Your task to perform on an android device: Show me popular games on the Play Store Image 0: 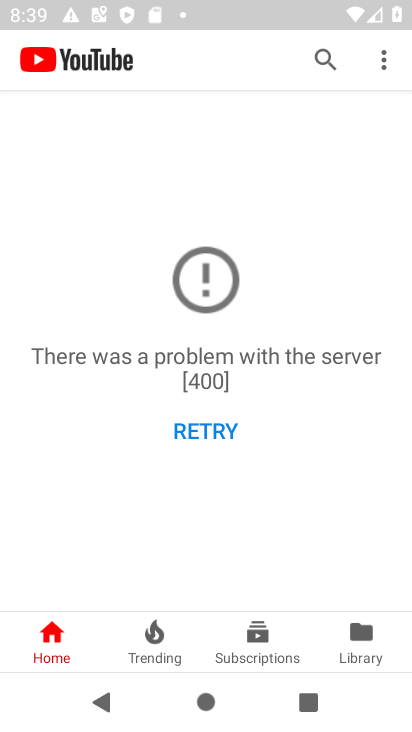
Step 0: press home button
Your task to perform on an android device: Show me popular games on the Play Store Image 1: 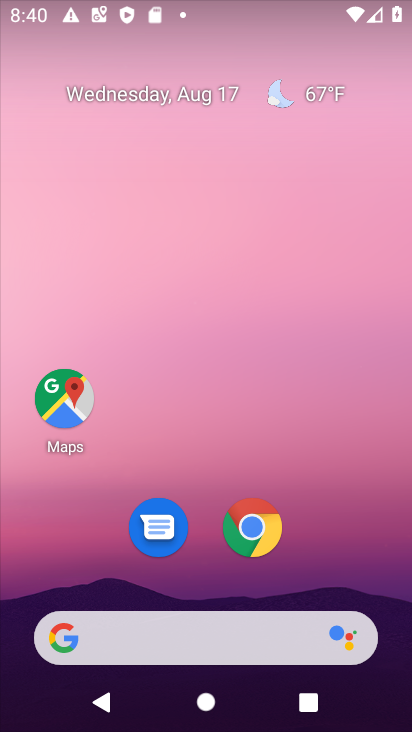
Step 1: drag from (207, 578) to (219, 2)
Your task to perform on an android device: Show me popular games on the Play Store Image 2: 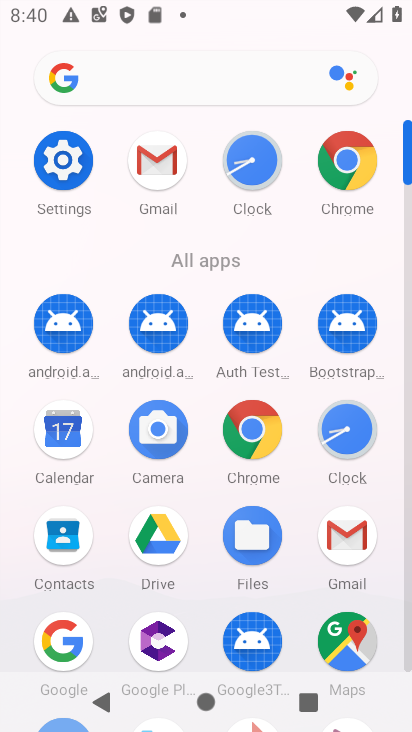
Step 2: drag from (196, 670) to (218, 137)
Your task to perform on an android device: Show me popular games on the Play Store Image 3: 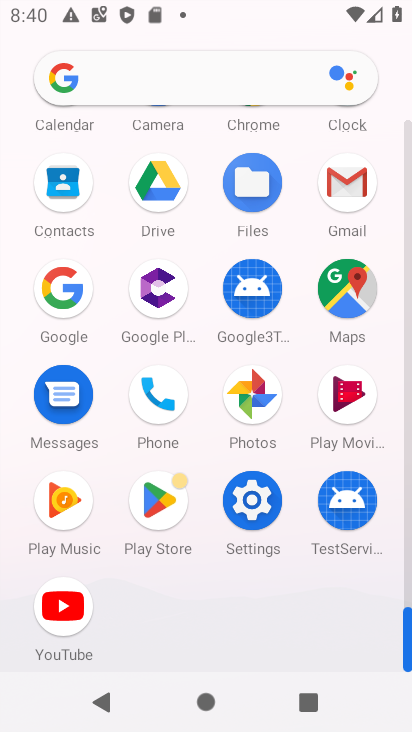
Step 3: click (170, 514)
Your task to perform on an android device: Show me popular games on the Play Store Image 4: 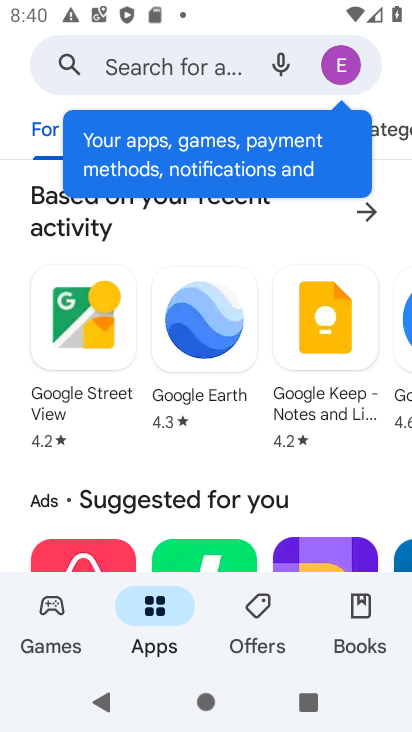
Step 4: click (56, 621)
Your task to perform on an android device: Show me popular games on the Play Store Image 5: 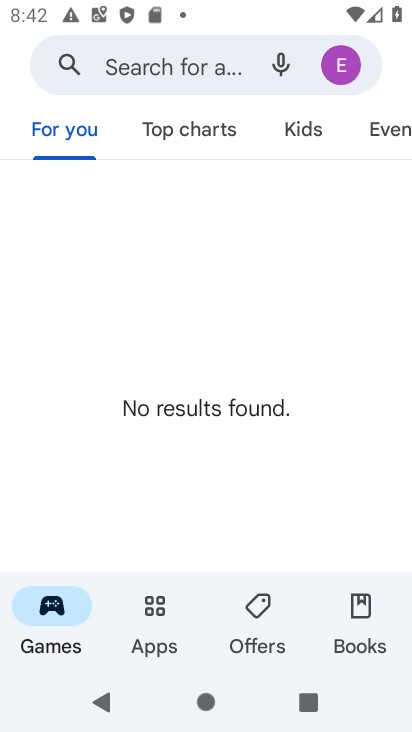
Step 5: task complete